Your task to perform on an android device: turn on location history Image 0: 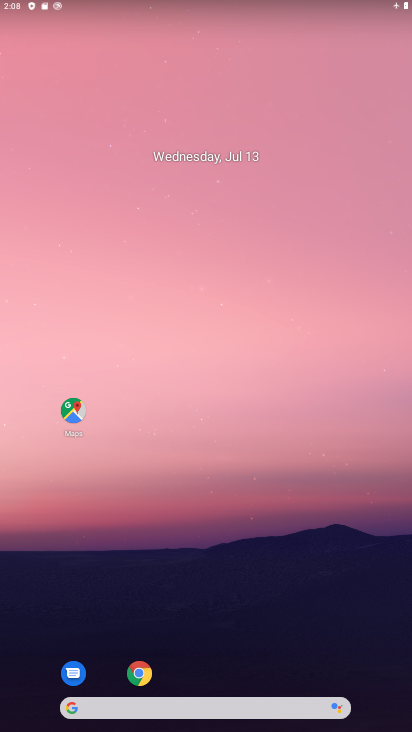
Step 0: drag from (180, 709) to (273, 116)
Your task to perform on an android device: turn on location history Image 1: 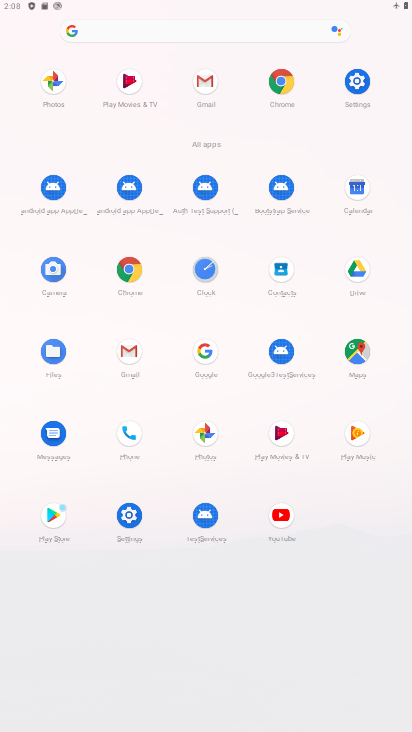
Step 1: click (358, 83)
Your task to perform on an android device: turn on location history Image 2: 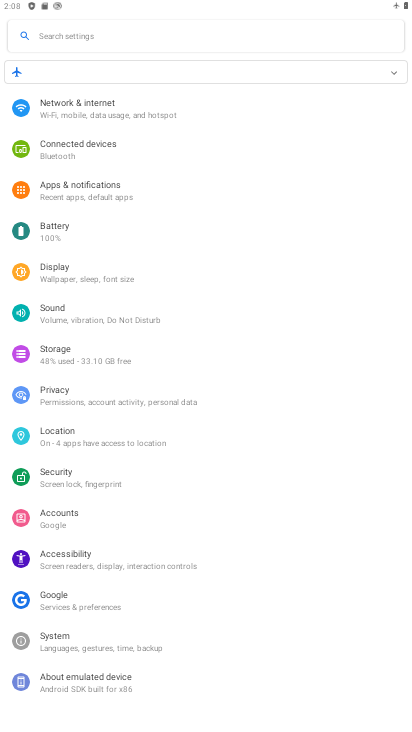
Step 2: click (74, 439)
Your task to perform on an android device: turn on location history Image 3: 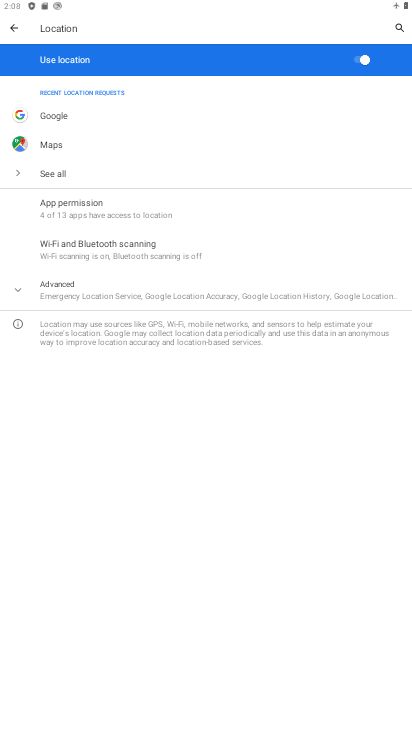
Step 3: click (137, 291)
Your task to perform on an android device: turn on location history Image 4: 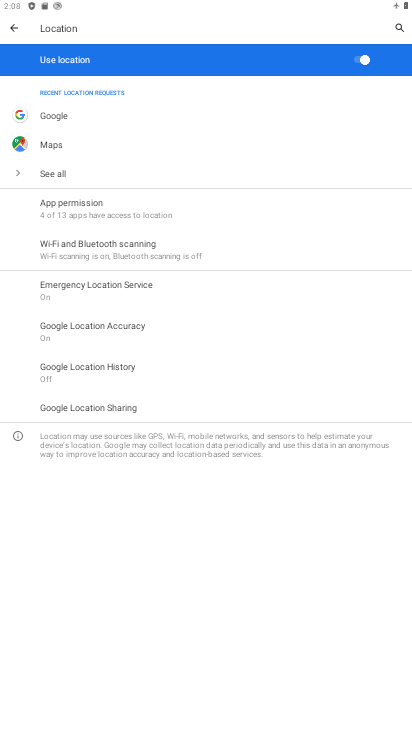
Step 4: click (116, 372)
Your task to perform on an android device: turn on location history Image 5: 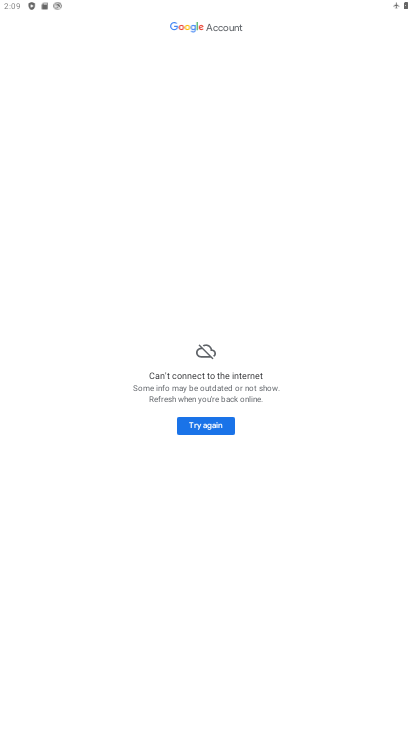
Step 5: task complete